Your task to perform on an android device: turn on the 24-hour format for clock Image 0: 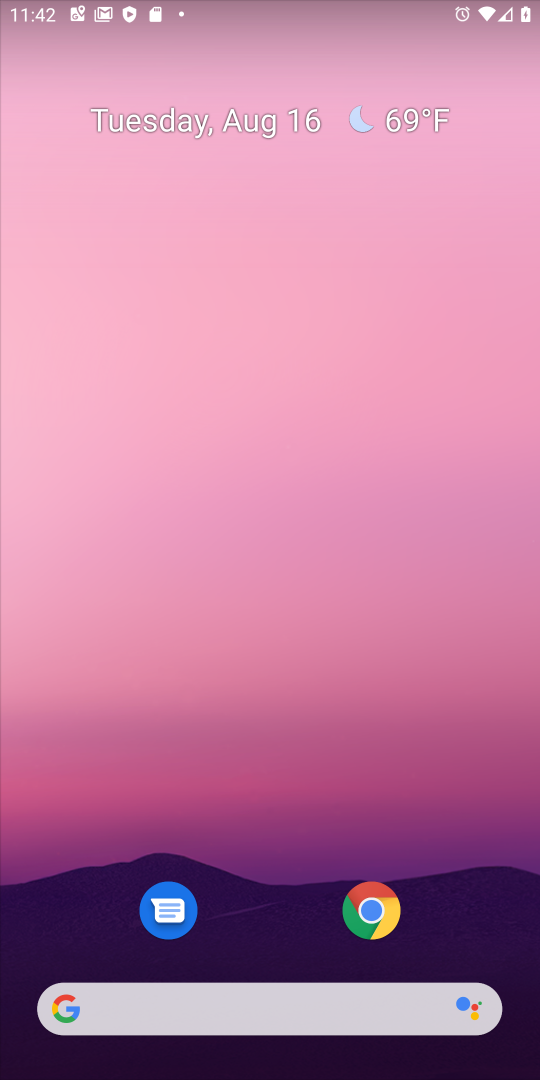
Step 0: press home button
Your task to perform on an android device: turn on the 24-hour format for clock Image 1: 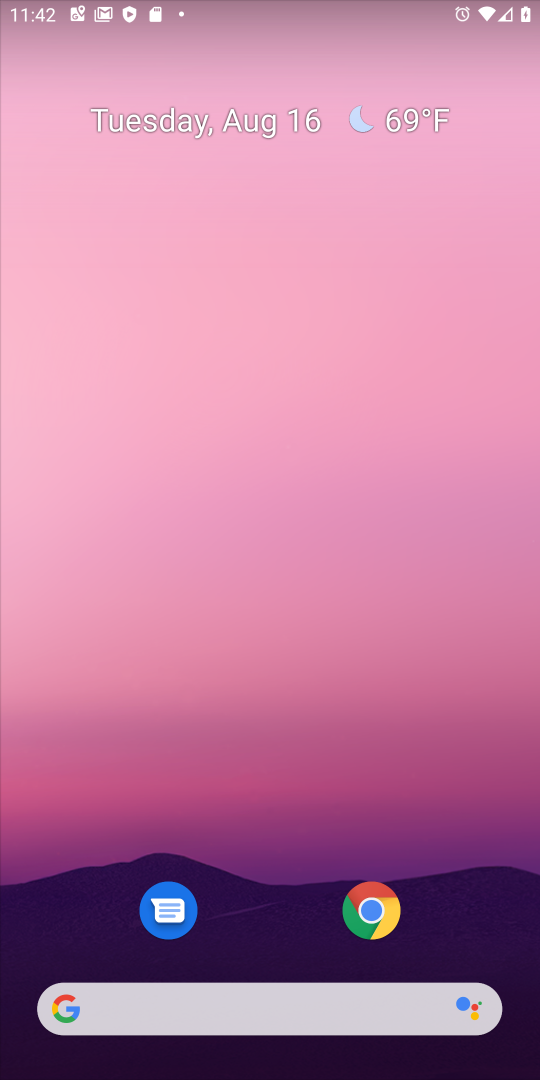
Step 1: press home button
Your task to perform on an android device: turn on the 24-hour format for clock Image 2: 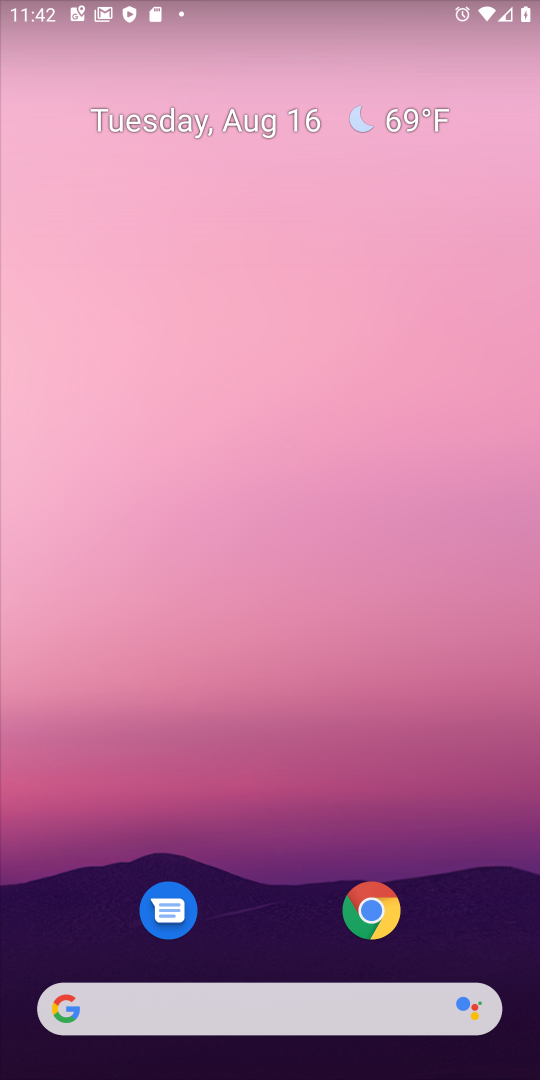
Step 2: drag from (260, 853) to (325, 192)
Your task to perform on an android device: turn on the 24-hour format for clock Image 3: 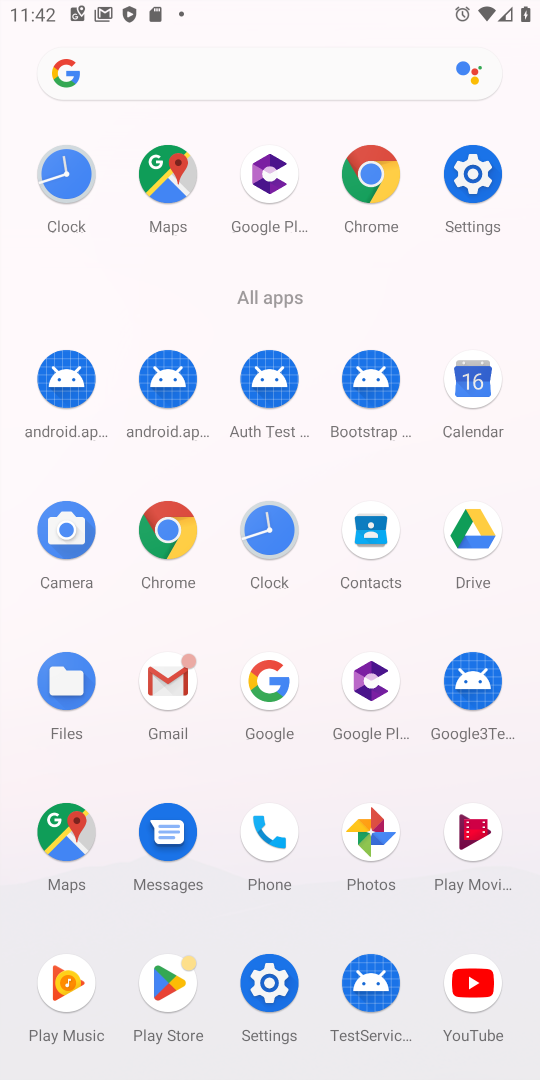
Step 3: click (261, 539)
Your task to perform on an android device: turn on the 24-hour format for clock Image 4: 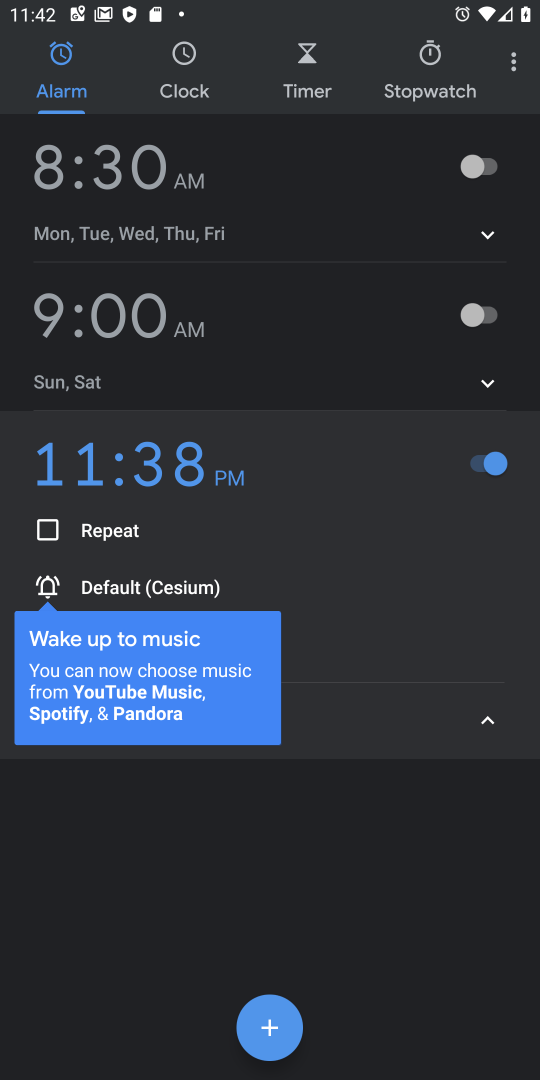
Step 4: click (520, 64)
Your task to perform on an android device: turn on the 24-hour format for clock Image 5: 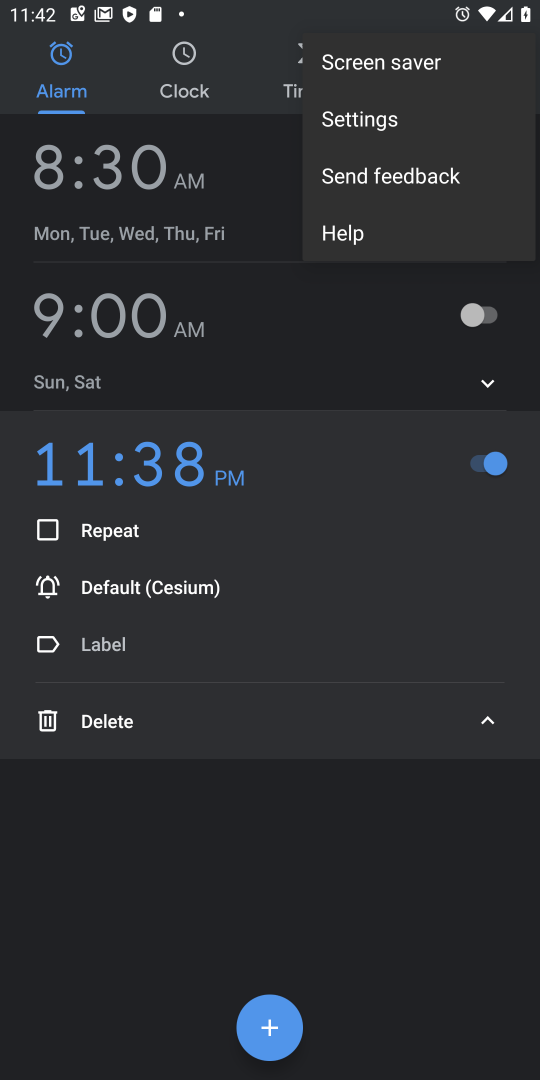
Step 5: click (398, 136)
Your task to perform on an android device: turn on the 24-hour format for clock Image 6: 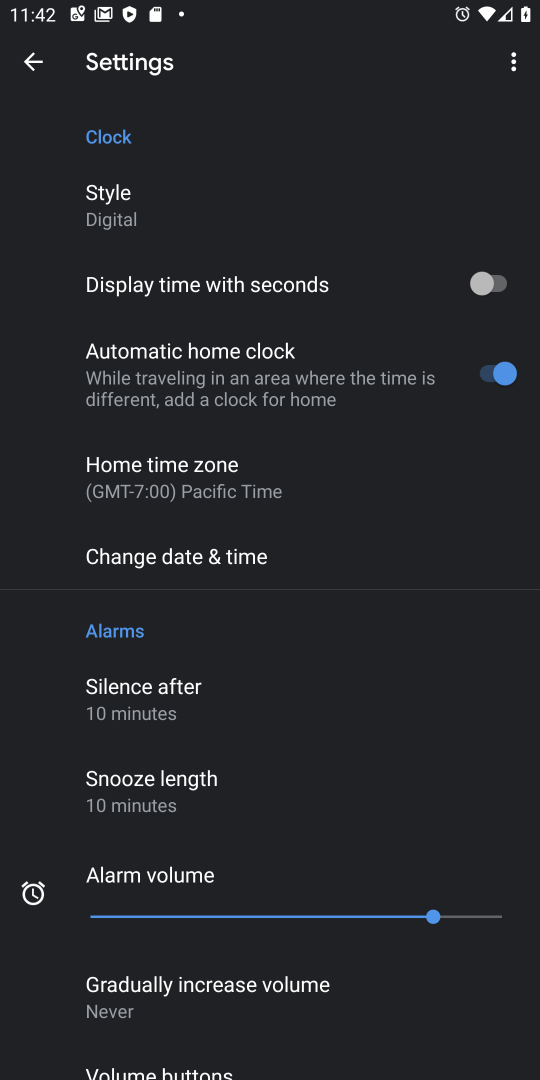
Step 6: click (200, 575)
Your task to perform on an android device: turn on the 24-hour format for clock Image 7: 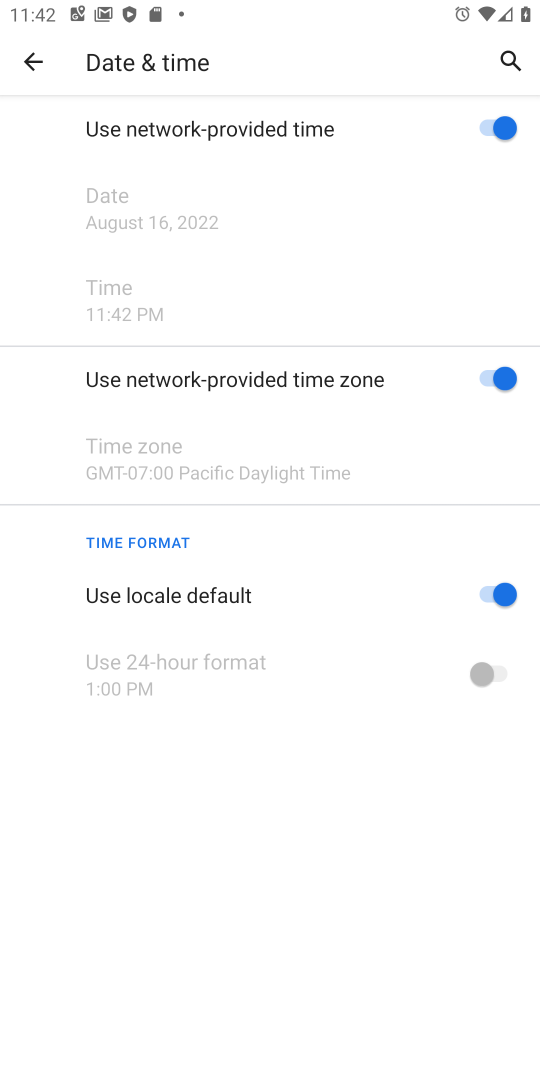
Step 7: click (515, 609)
Your task to perform on an android device: turn on the 24-hour format for clock Image 8: 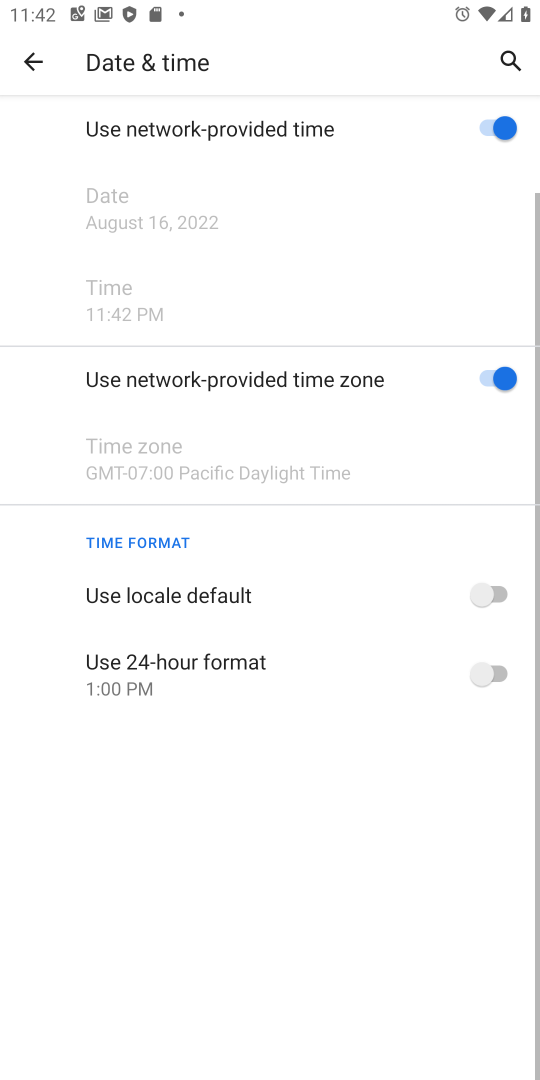
Step 8: click (488, 678)
Your task to perform on an android device: turn on the 24-hour format for clock Image 9: 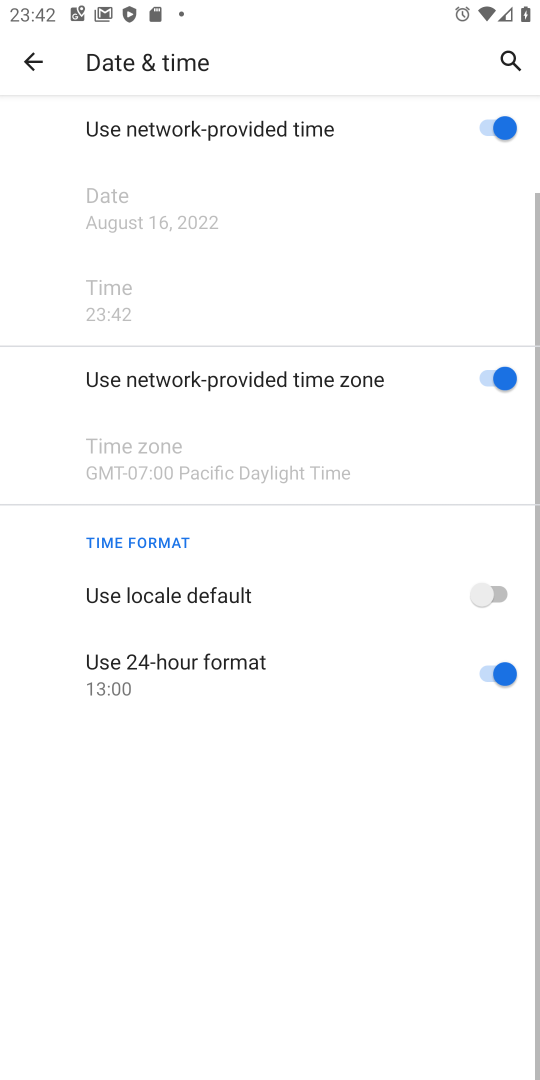
Step 9: task complete